Your task to perform on an android device: check data usage Image 0: 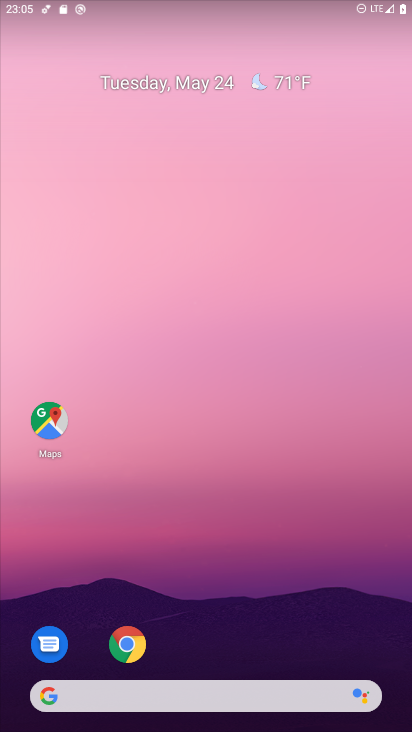
Step 0: drag from (220, 526) to (178, 215)
Your task to perform on an android device: check data usage Image 1: 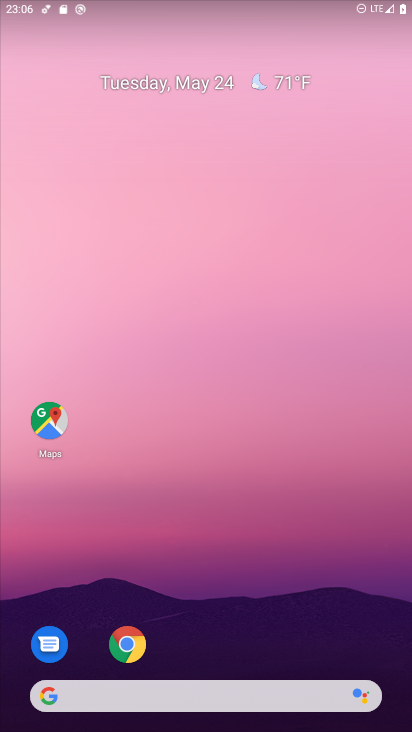
Step 1: drag from (221, 597) to (157, 150)
Your task to perform on an android device: check data usage Image 2: 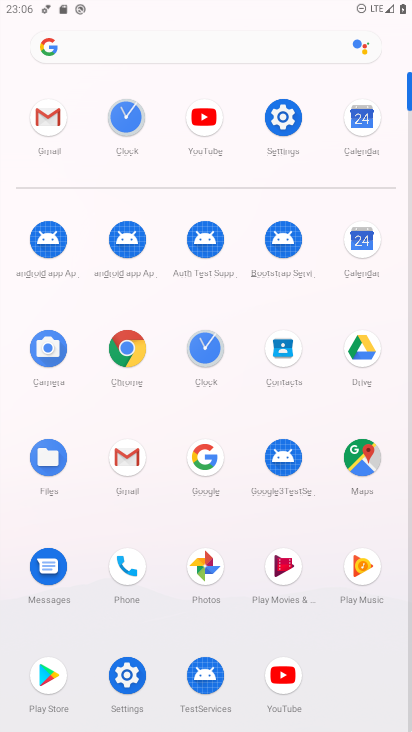
Step 2: click (275, 112)
Your task to perform on an android device: check data usage Image 3: 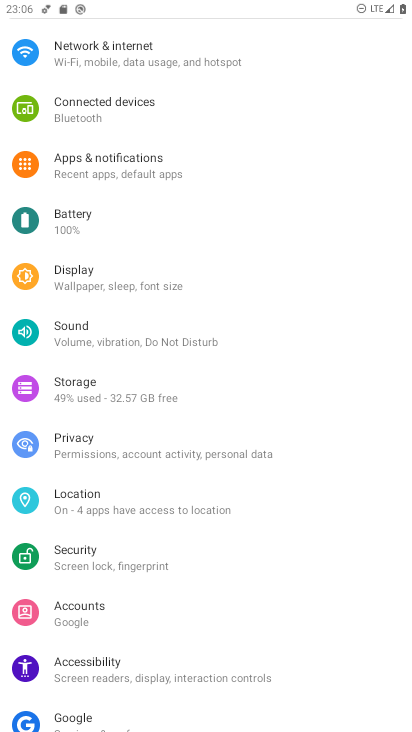
Step 3: click (102, 44)
Your task to perform on an android device: check data usage Image 4: 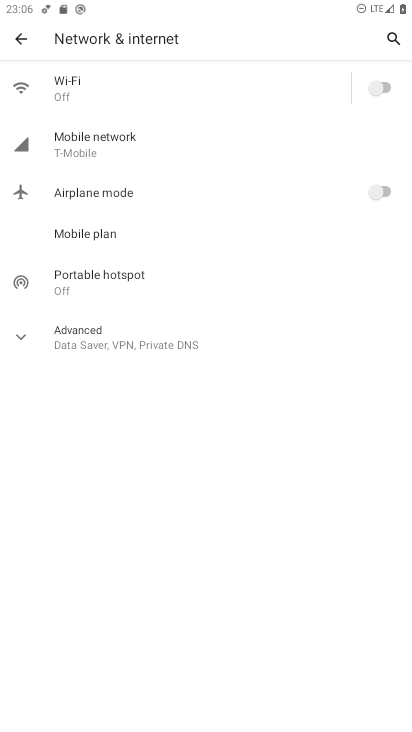
Step 4: click (93, 138)
Your task to perform on an android device: check data usage Image 5: 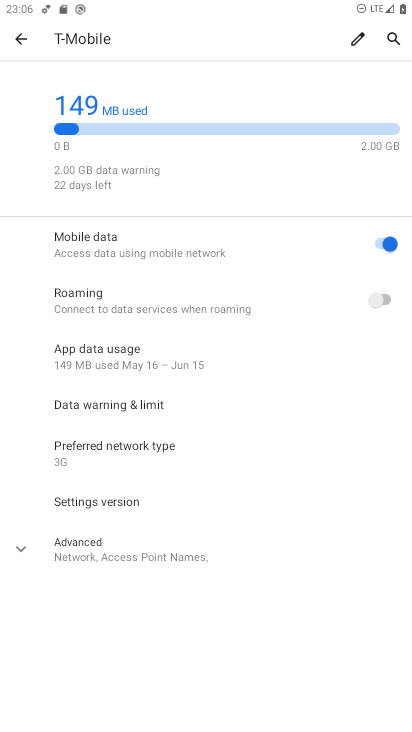
Step 5: task complete